Your task to perform on an android device: Open Maps and search for coffee Image 0: 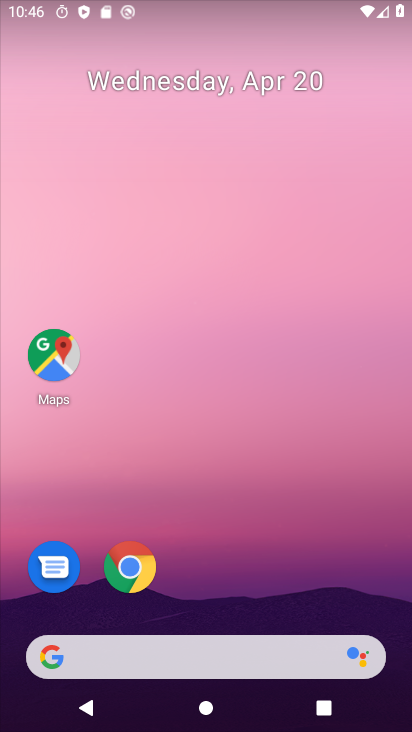
Step 0: click (48, 358)
Your task to perform on an android device: Open Maps and search for coffee Image 1: 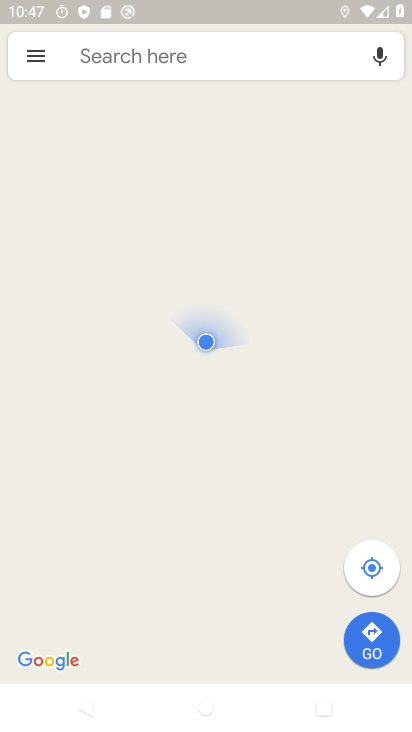
Step 1: click (45, 51)
Your task to perform on an android device: Open Maps and search for coffee Image 2: 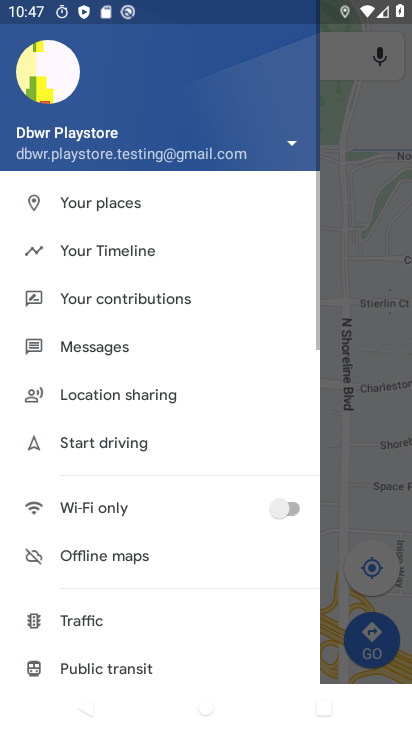
Step 2: click (372, 247)
Your task to perform on an android device: Open Maps and search for coffee Image 3: 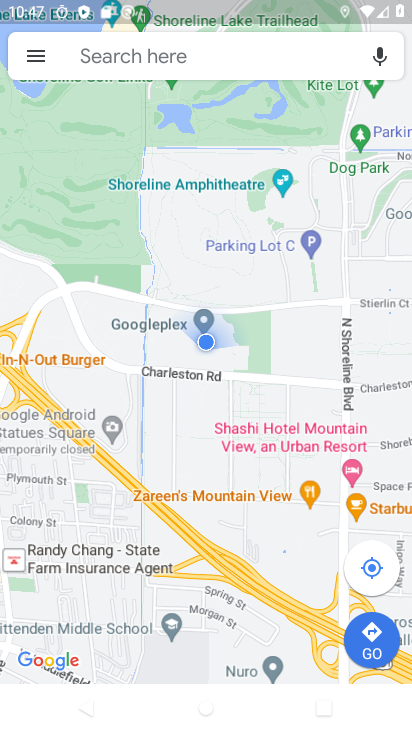
Step 3: click (186, 59)
Your task to perform on an android device: Open Maps and search for coffee Image 4: 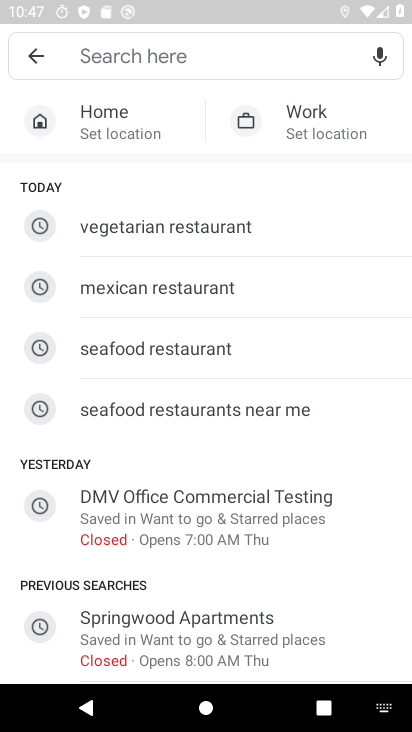
Step 4: click (146, 61)
Your task to perform on an android device: Open Maps and search for coffee Image 5: 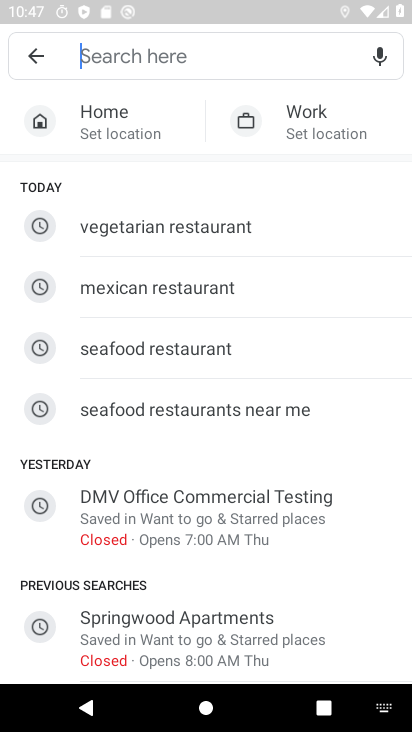
Step 5: type "coffee"
Your task to perform on an android device: Open Maps and search for coffee Image 6: 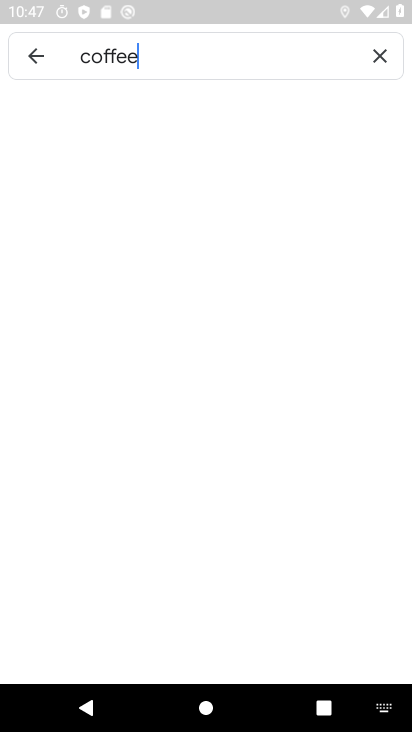
Step 6: type ""
Your task to perform on an android device: Open Maps and search for coffee Image 7: 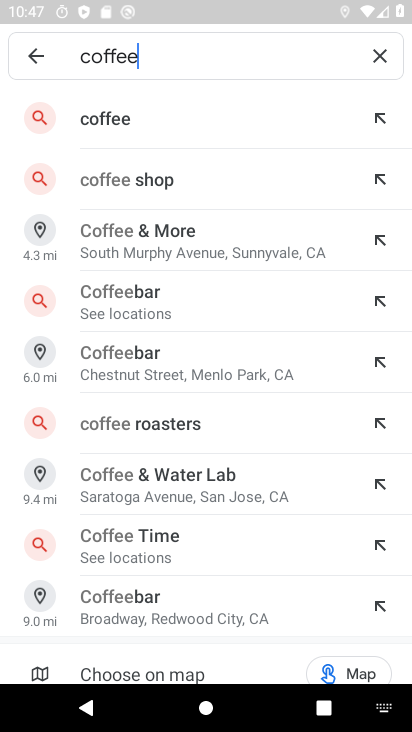
Step 7: click (174, 122)
Your task to perform on an android device: Open Maps and search for coffee Image 8: 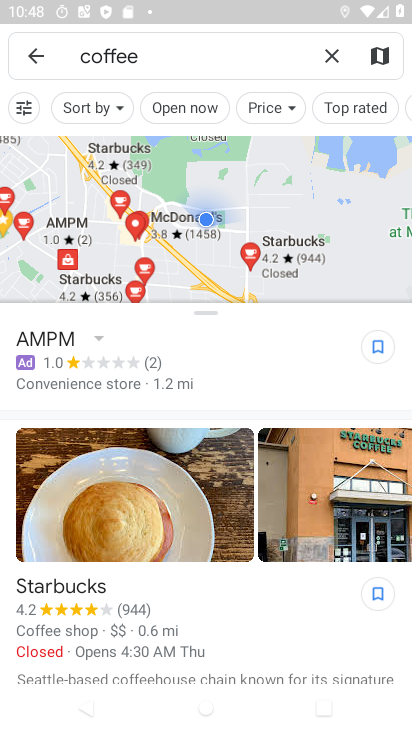
Step 8: task complete